Your task to perform on an android device: open chrome privacy settings Image 0: 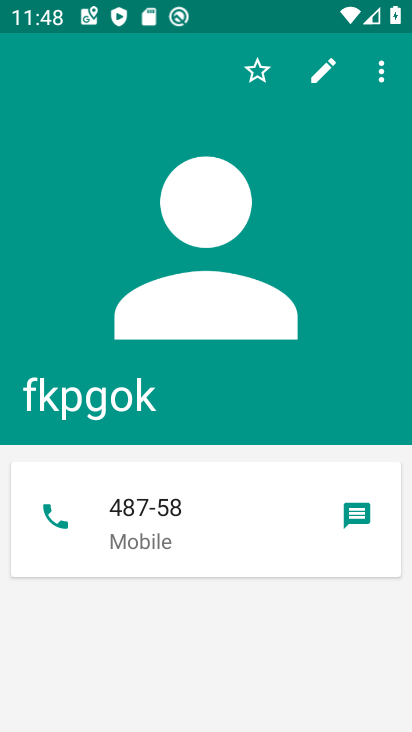
Step 0: press home button
Your task to perform on an android device: open chrome privacy settings Image 1: 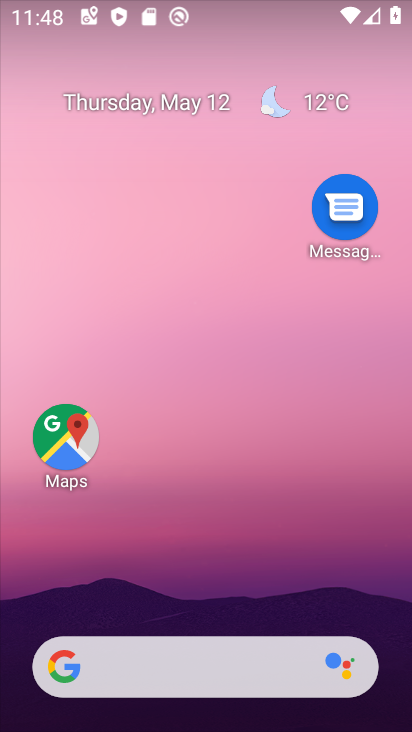
Step 1: drag from (256, 577) to (279, 29)
Your task to perform on an android device: open chrome privacy settings Image 2: 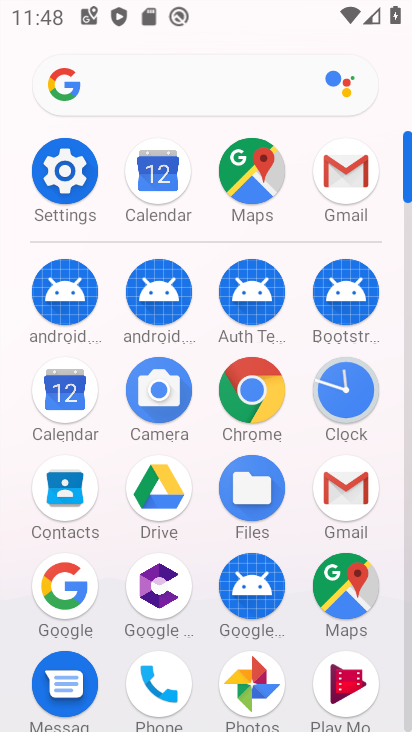
Step 2: click (268, 423)
Your task to perform on an android device: open chrome privacy settings Image 3: 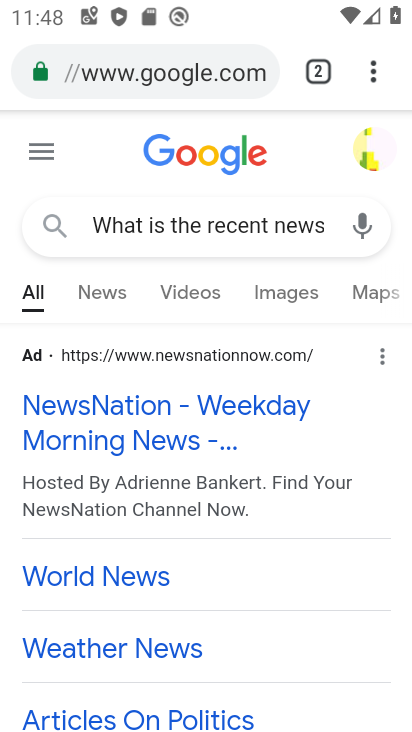
Step 3: drag from (367, 62) to (180, 562)
Your task to perform on an android device: open chrome privacy settings Image 4: 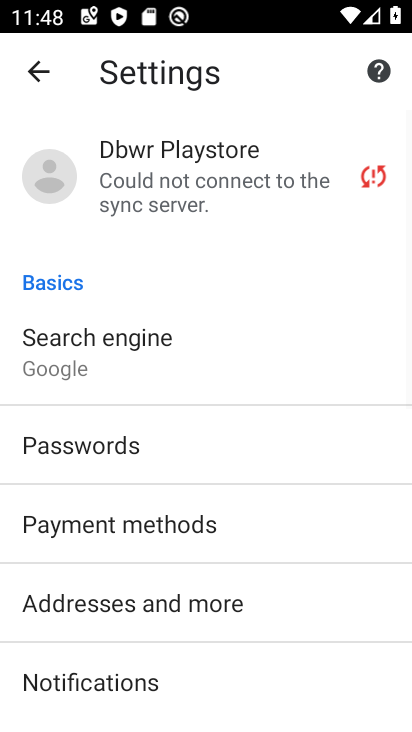
Step 4: drag from (180, 562) to (331, 154)
Your task to perform on an android device: open chrome privacy settings Image 5: 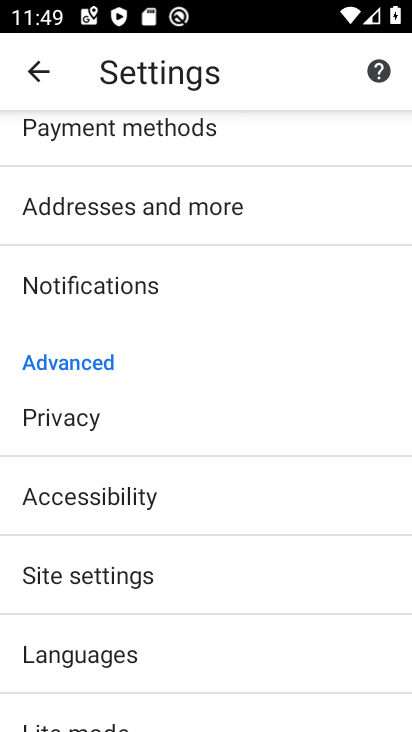
Step 5: click (151, 442)
Your task to perform on an android device: open chrome privacy settings Image 6: 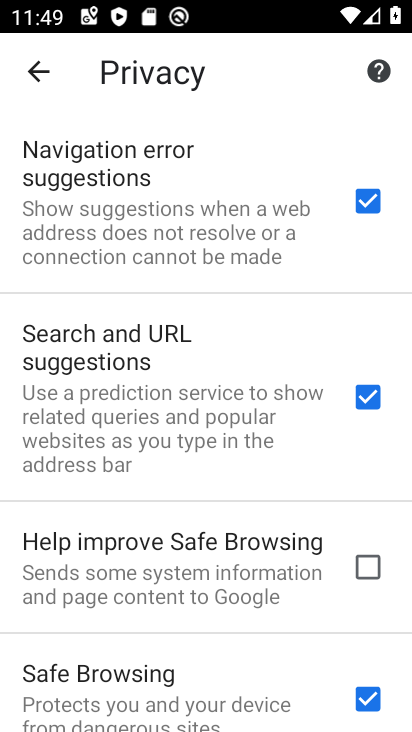
Step 6: task complete